Your task to perform on an android device: turn off location history Image 0: 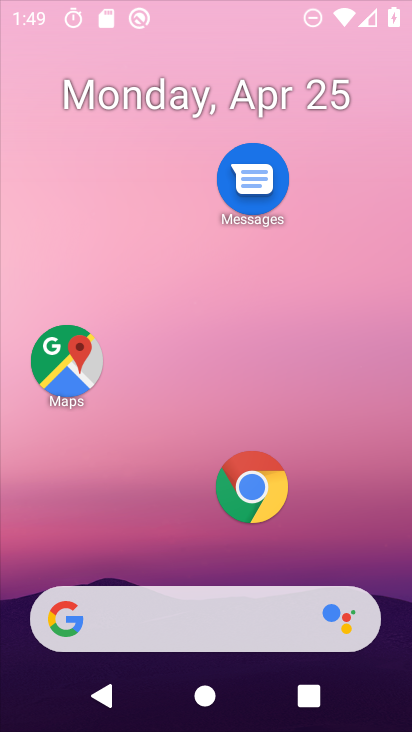
Step 0: drag from (254, 599) to (262, 2)
Your task to perform on an android device: turn off location history Image 1: 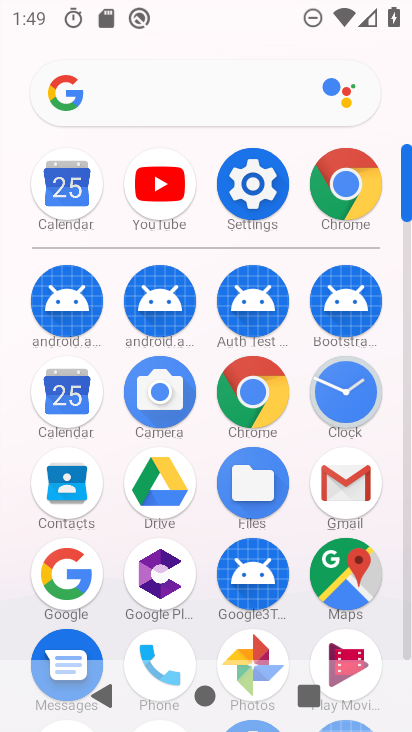
Step 1: drag from (302, 639) to (351, 65)
Your task to perform on an android device: turn off location history Image 2: 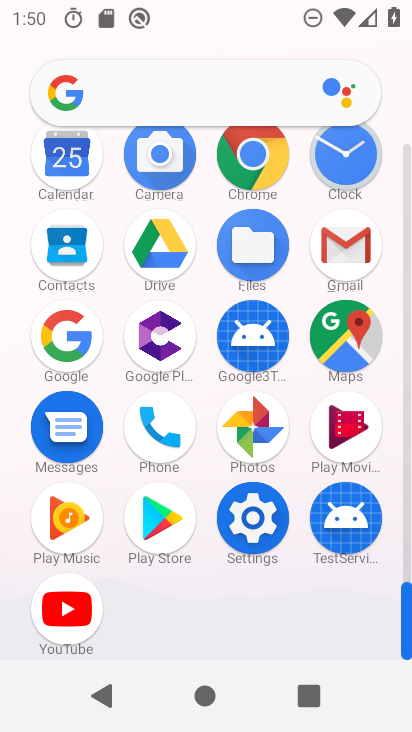
Step 2: click (238, 536)
Your task to perform on an android device: turn off location history Image 3: 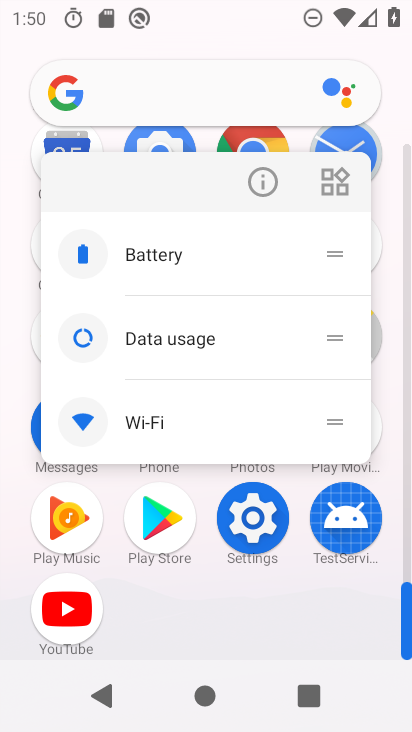
Step 3: click (239, 517)
Your task to perform on an android device: turn off location history Image 4: 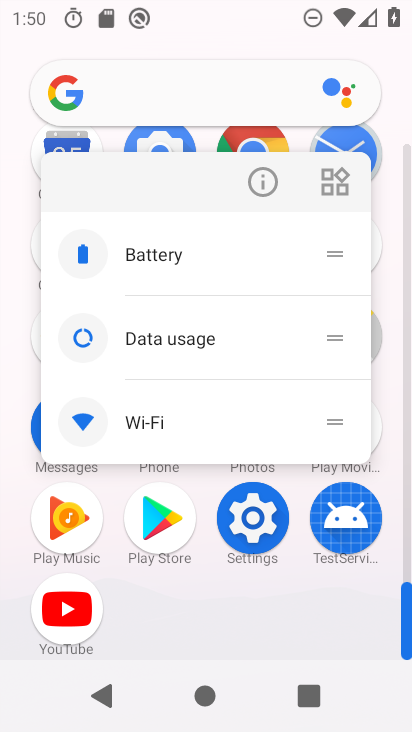
Step 4: click (249, 515)
Your task to perform on an android device: turn off location history Image 5: 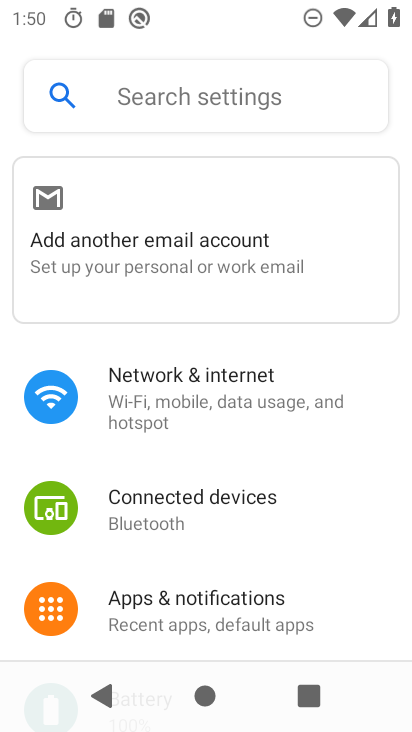
Step 5: drag from (155, 630) to (196, 144)
Your task to perform on an android device: turn off location history Image 6: 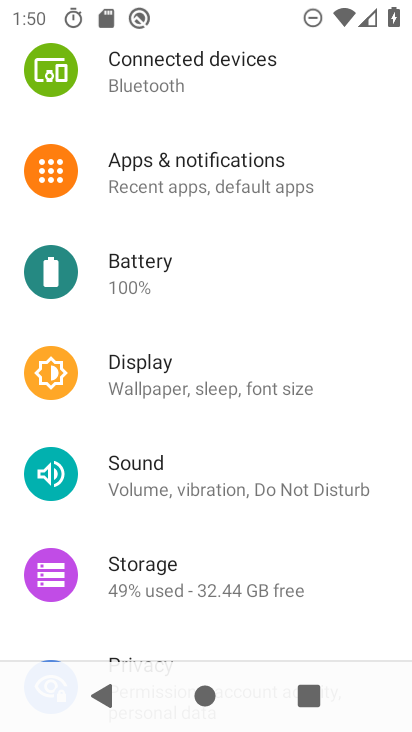
Step 6: drag from (274, 615) to (258, 106)
Your task to perform on an android device: turn off location history Image 7: 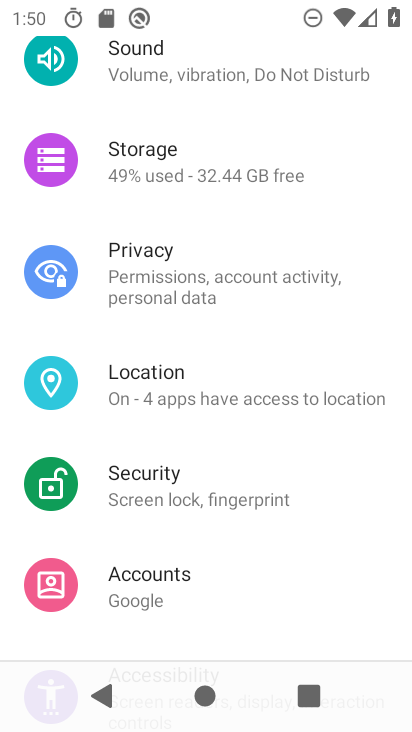
Step 7: click (210, 384)
Your task to perform on an android device: turn off location history Image 8: 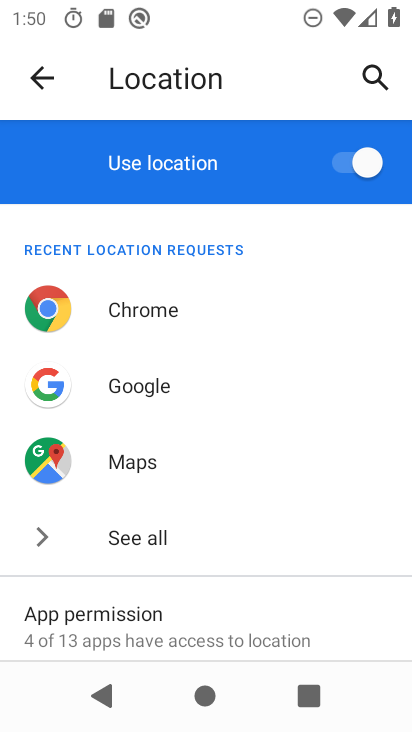
Step 8: drag from (234, 613) to (271, 200)
Your task to perform on an android device: turn off location history Image 9: 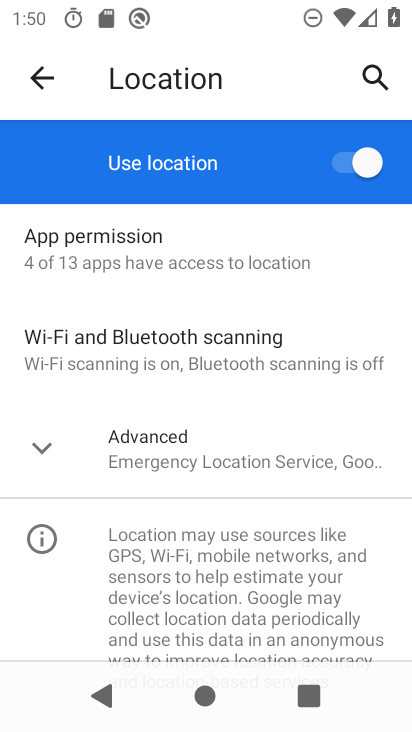
Step 9: click (261, 451)
Your task to perform on an android device: turn off location history Image 10: 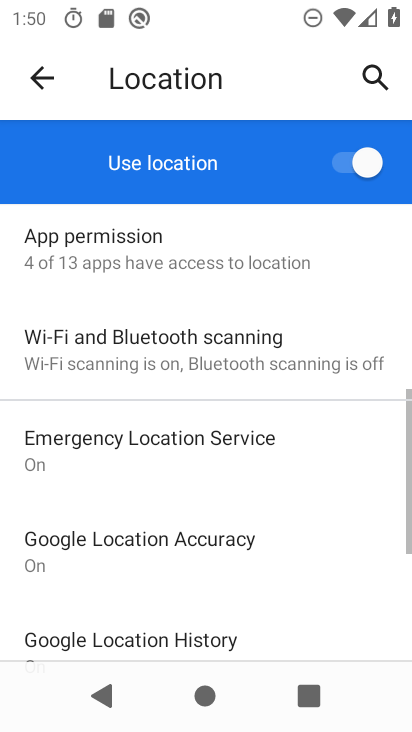
Step 10: drag from (244, 602) to (301, 193)
Your task to perform on an android device: turn off location history Image 11: 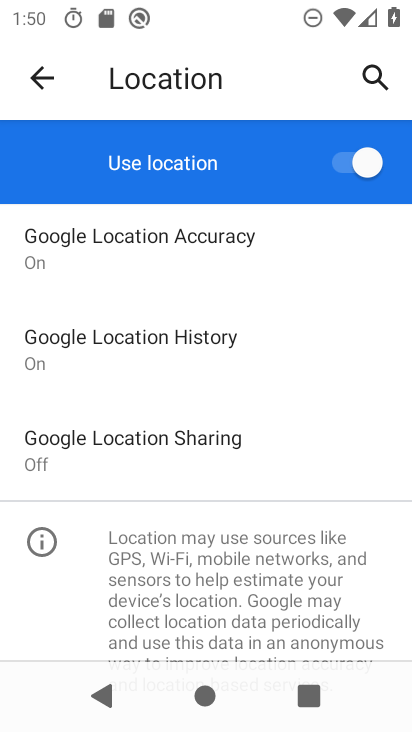
Step 11: click (220, 351)
Your task to perform on an android device: turn off location history Image 12: 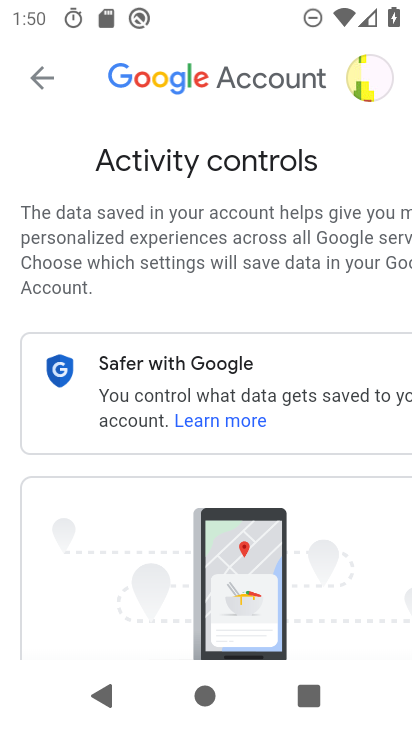
Step 12: drag from (304, 606) to (277, 47)
Your task to perform on an android device: turn off location history Image 13: 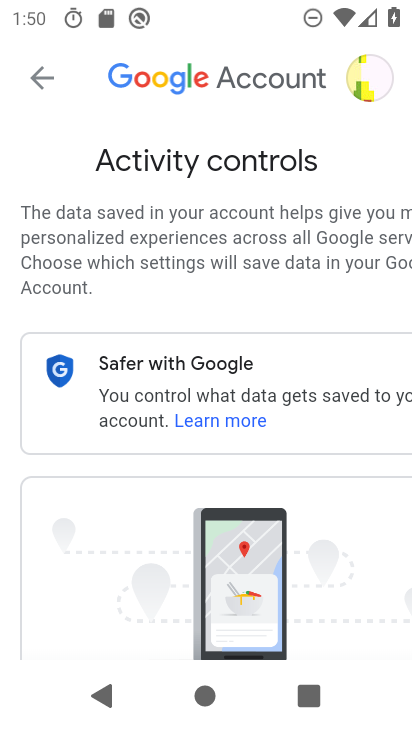
Step 13: drag from (285, 515) to (201, 124)
Your task to perform on an android device: turn off location history Image 14: 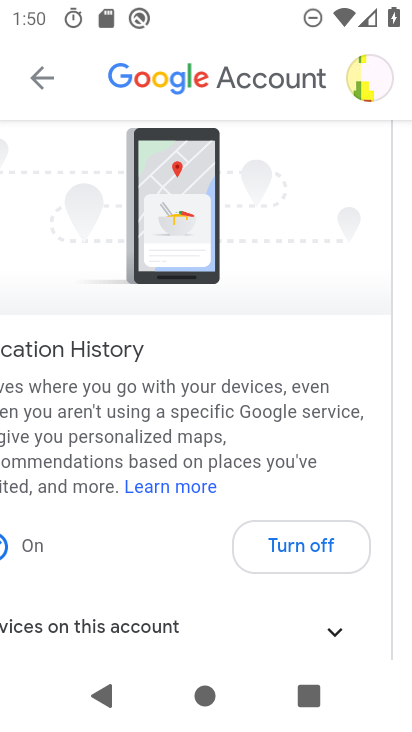
Step 14: click (297, 541)
Your task to perform on an android device: turn off location history Image 15: 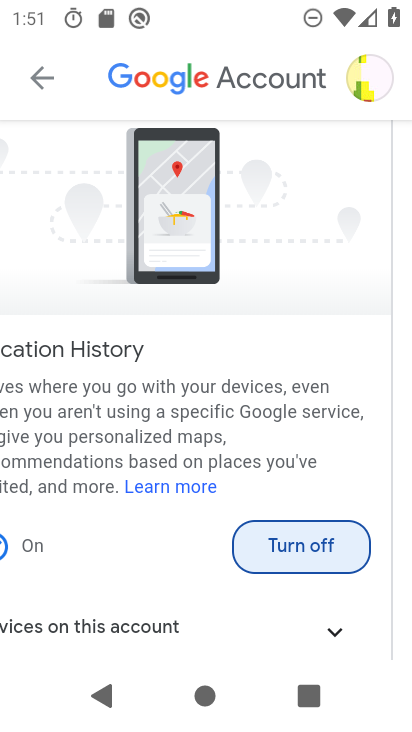
Step 15: click (315, 547)
Your task to perform on an android device: turn off location history Image 16: 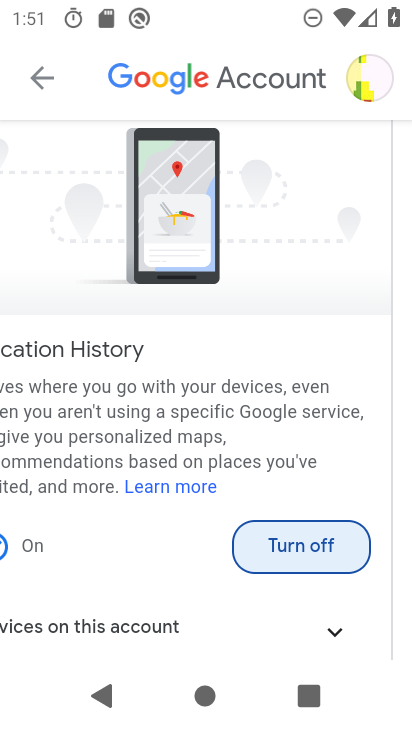
Step 16: click (287, 544)
Your task to perform on an android device: turn off location history Image 17: 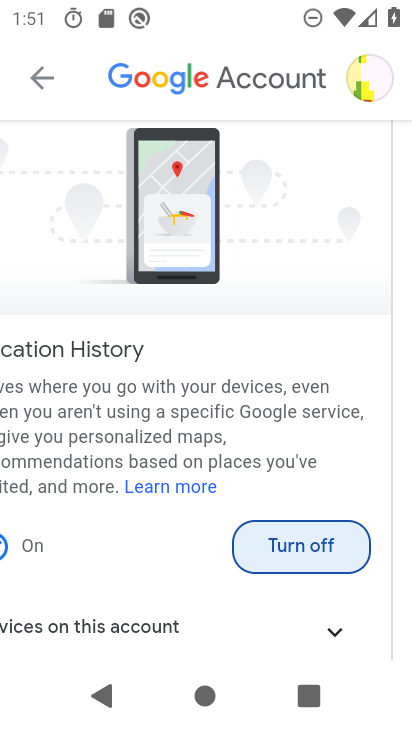
Step 17: click (287, 544)
Your task to perform on an android device: turn off location history Image 18: 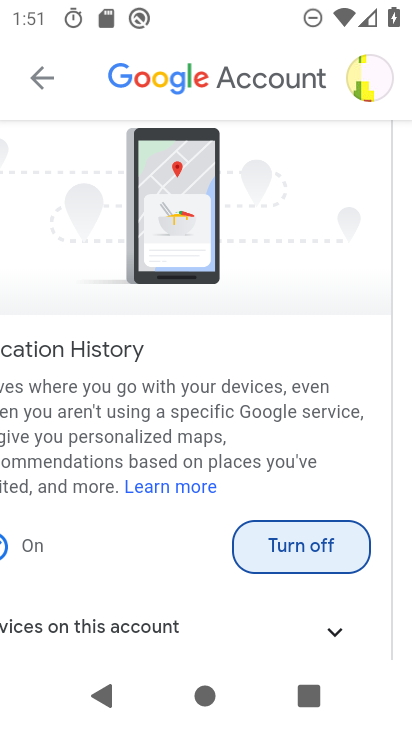
Step 18: drag from (271, 632) to (311, 257)
Your task to perform on an android device: turn off location history Image 19: 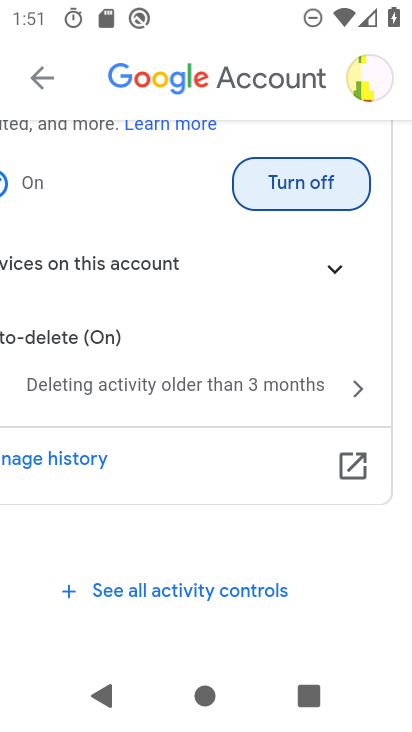
Step 19: click (297, 187)
Your task to perform on an android device: turn off location history Image 20: 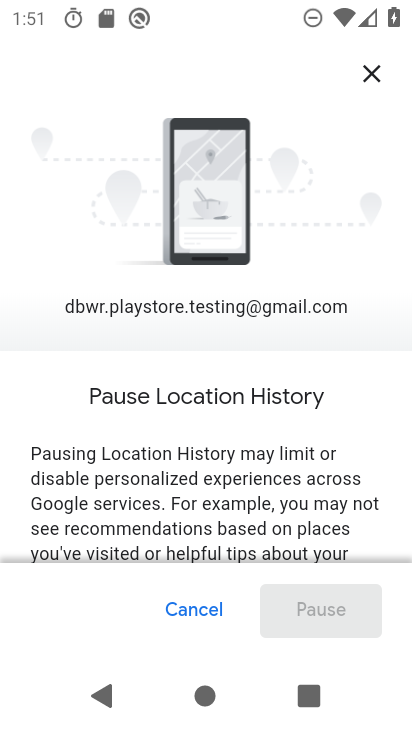
Step 20: drag from (304, 551) to (329, 51)
Your task to perform on an android device: turn off location history Image 21: 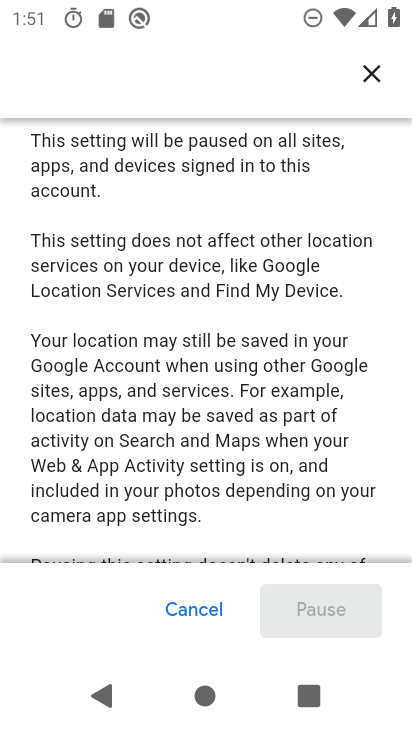
Step 21: drag from (324, 499) to (327, 77)
Your task to perform on an android device: turn off location history Image 22: 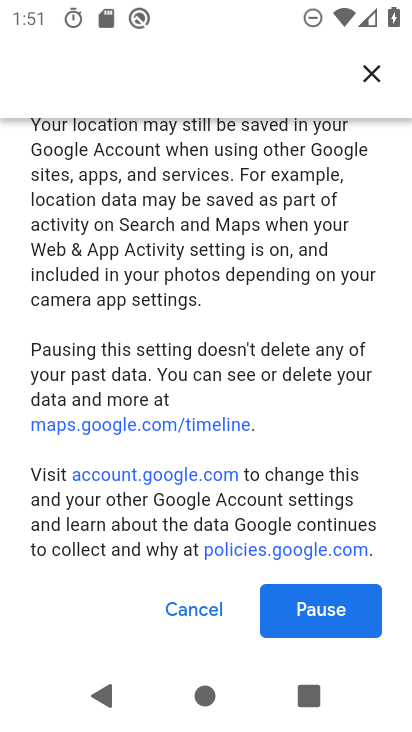
Step 22: click (350, 610)
Your task to perform on an android device: turn off location history Image 23: 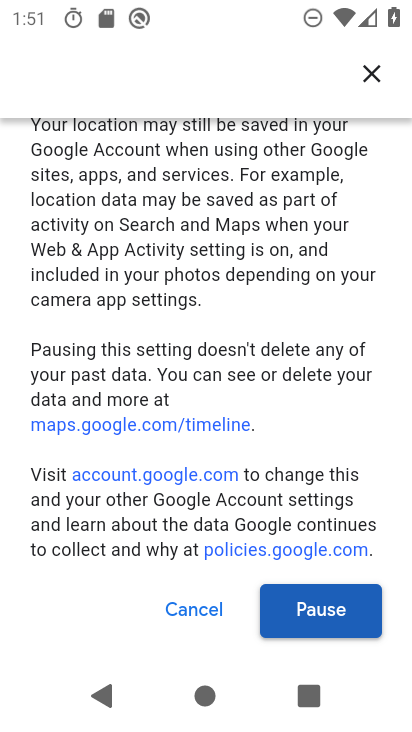
Step 23: click (341, 620)
Your task to perform on an android device: turn off location history Image 24: 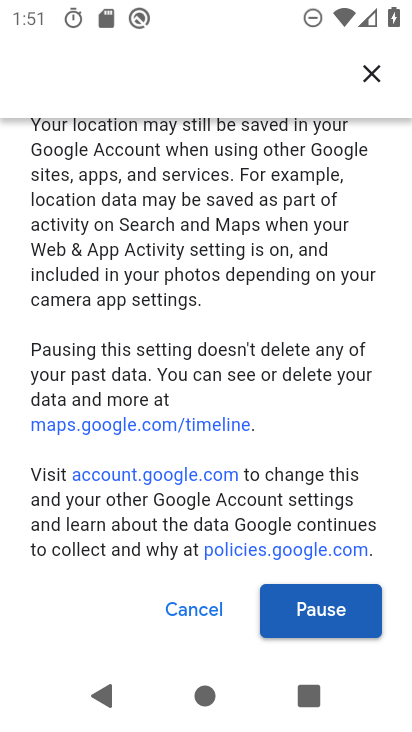
Step 24: click (338, 615)
Your task to perform on an android device: turn off location history Image 25: 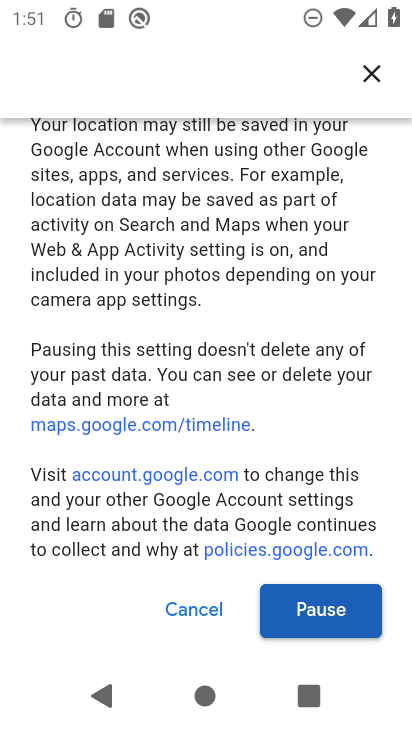
Step 25: click (332, 590)
Your task to perform on an android device: turn off location history Image 26: 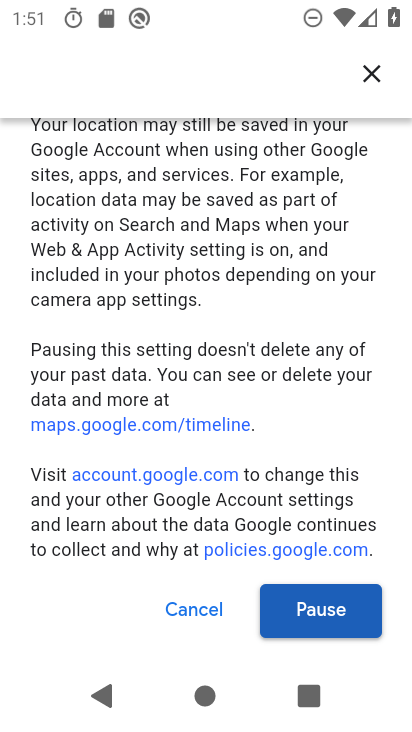
Step 26: click (327, 613)
Your task to perform on an android device: turn off location history Image 27: 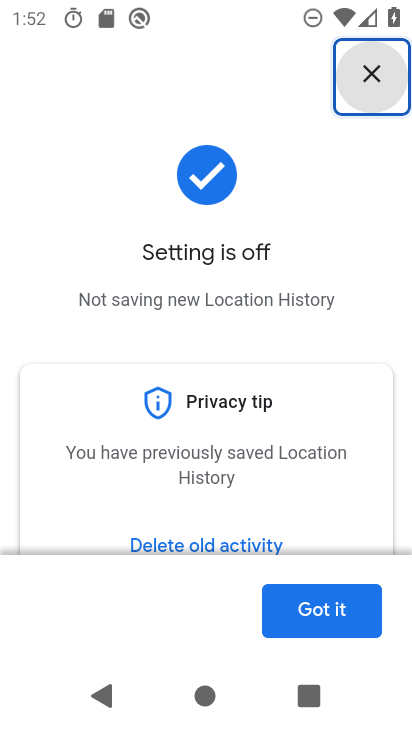
Step 27: task complete